Your task to perform on an android device: turn on airplane mode Image 0: 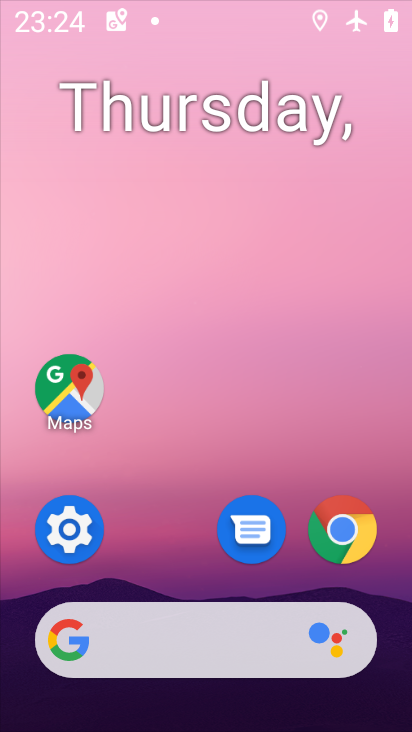
Step 0: click (226, 6)
Your task to perform on an android device: turn on airplane mode Image 1: 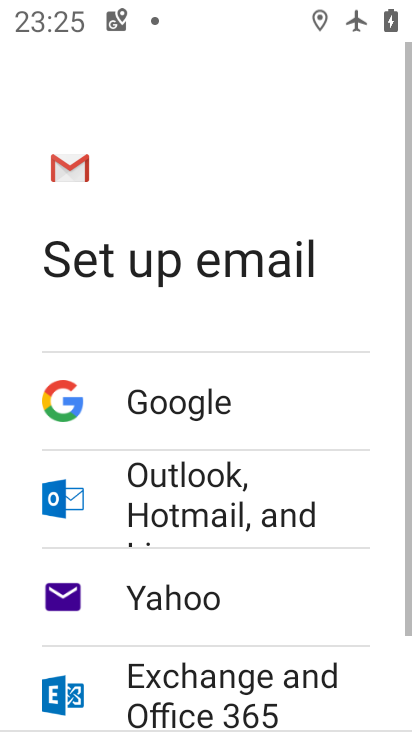
Step 1: press home button
Your task to perform on an android device: turn on airplane mode Image 2: 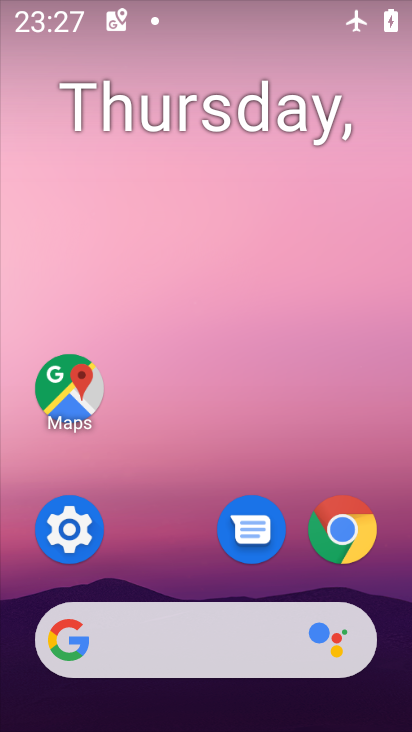
Step 2: click (61, 518)
Your task to perform on an android device: turn on airplane mode Image 3: 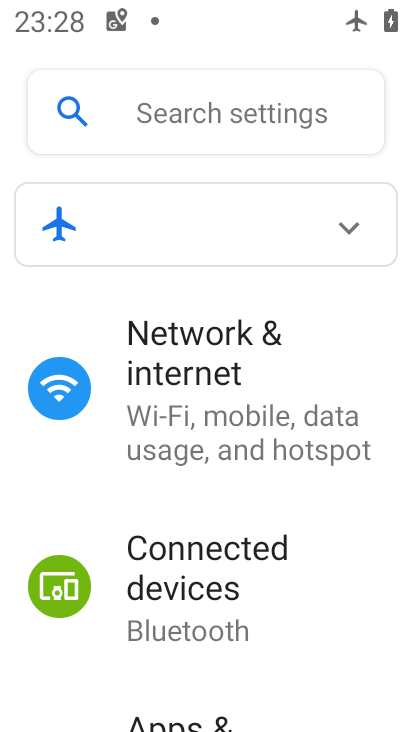
Step 3: click (230, 418)
Your task to perform on an android device: turn on airplane mode Image 4: 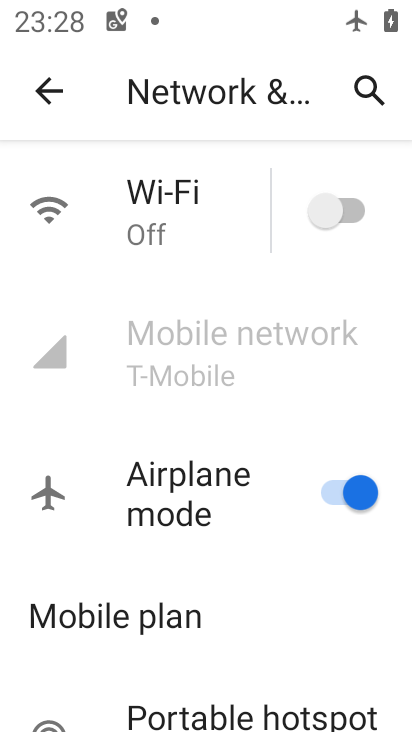
Step 4: task complete